Your task to perform on an android device: Go to accessibility settings Image 0: 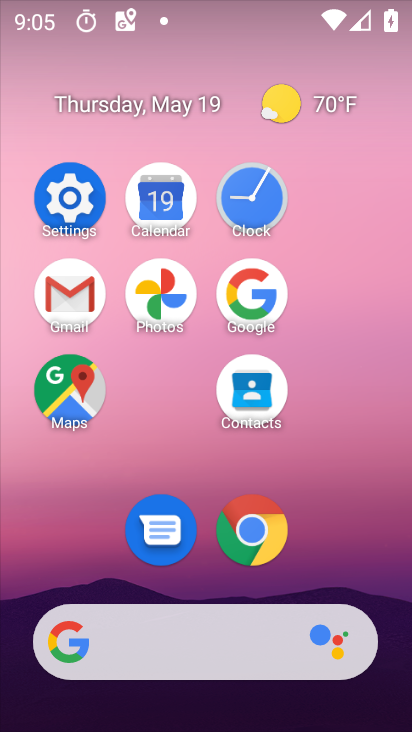
Step 0: click (74, 210)
Your task to perform on an android device: Go to accessibility settings Image 1: 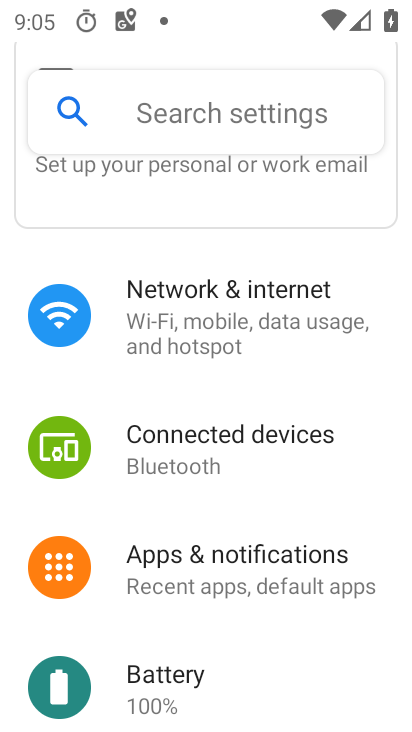
Step 1: drag from (311, 547) to (331, 146)
Your task to perform on an android device: Go to accessibility settings Image 2: 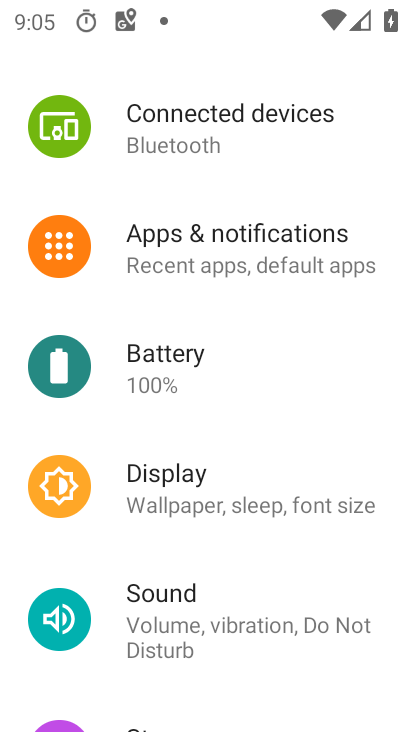
Step 2: drag from (326, 576) to (355, 152)
Your task to perform on an android device: Go to accessibility settings Image 3: 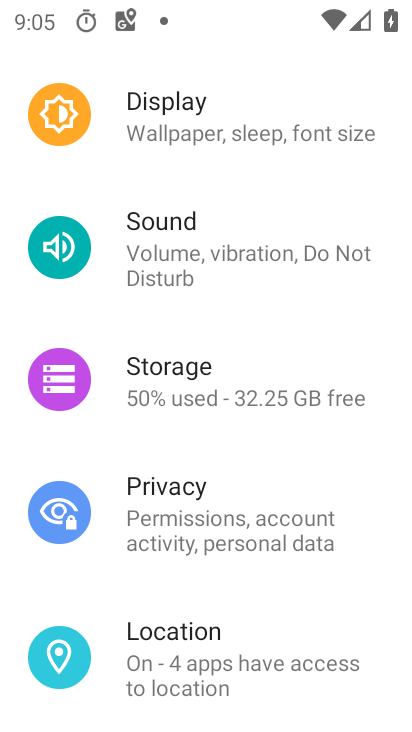
Step 3: drag from (296, 600) to (296, 177)
Your task to perform on an android device: Go to accessibility settings Image 4: 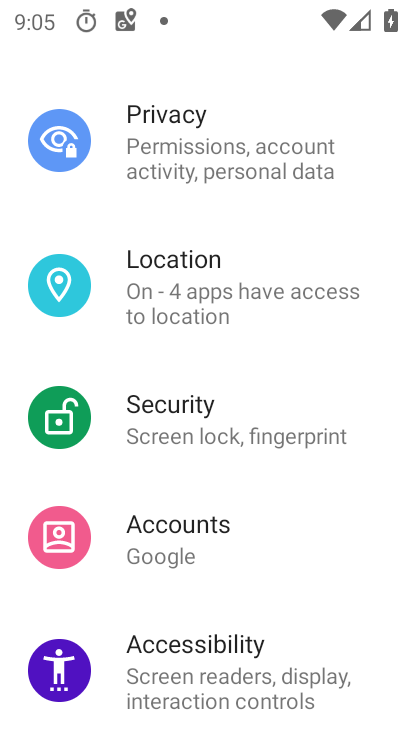
Step 4: click (243, 652)
Your task to perform on an android device: Go to accessibility settings Image 5: 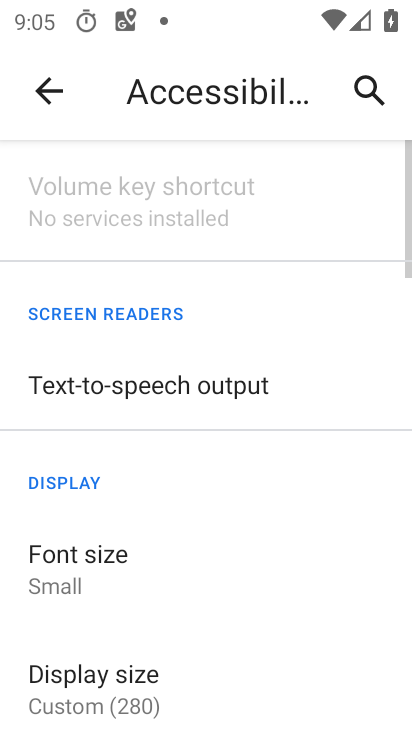
Step 5: task complete